Your task to perform on an android device: move an email to a new category in the gmail app Image 0: 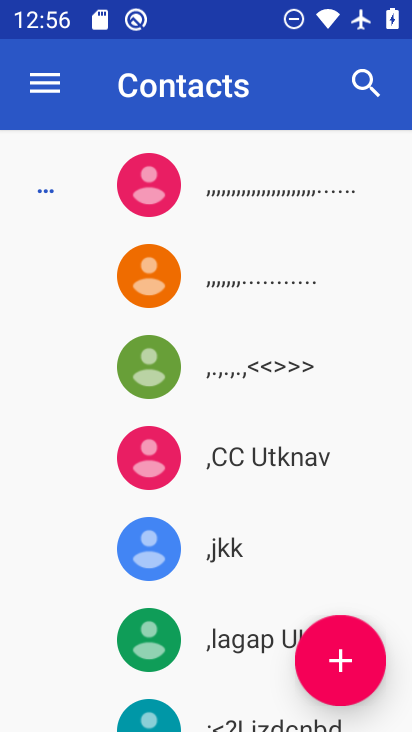
Step 0: press home button
Your task to perform on an android device: move an email to a new category in the gmail app Image 1: 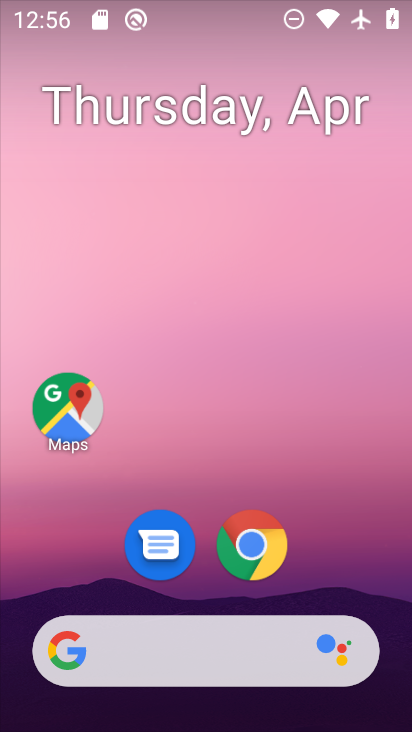
Step 1: drag from (305, 574) to (315, 107)
Your task to perform on an android device: move an email to a new category in the gmail app Image 2: 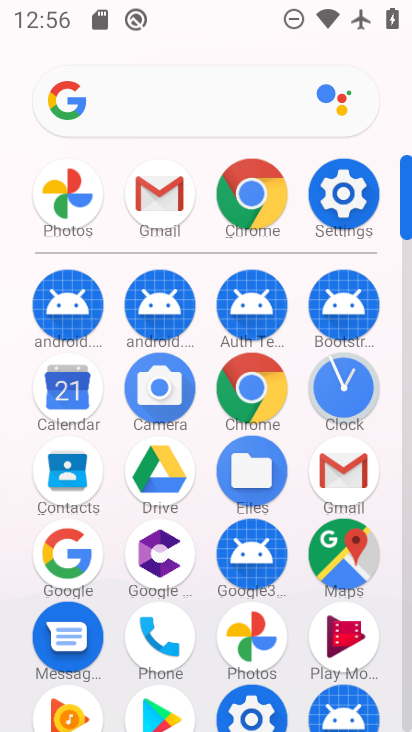
Step 2: click (348, 496)
Your task to perform on an android device: move an email to a new category in the gmail app Image 3: 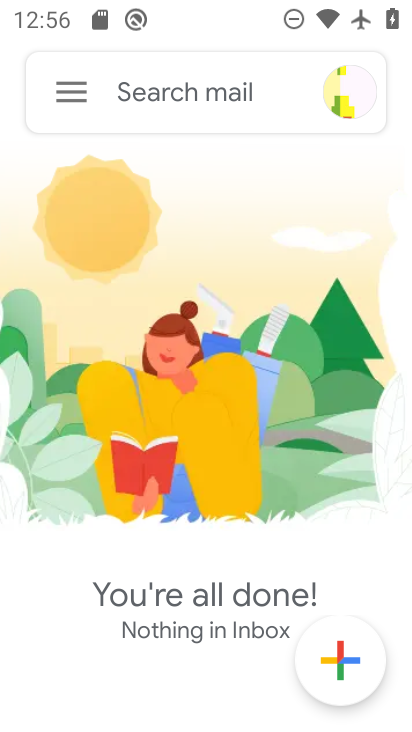
Step 3: click (62, 98)
Your task to perform on an android device: move an email to a new category in the gmail app Image 4: 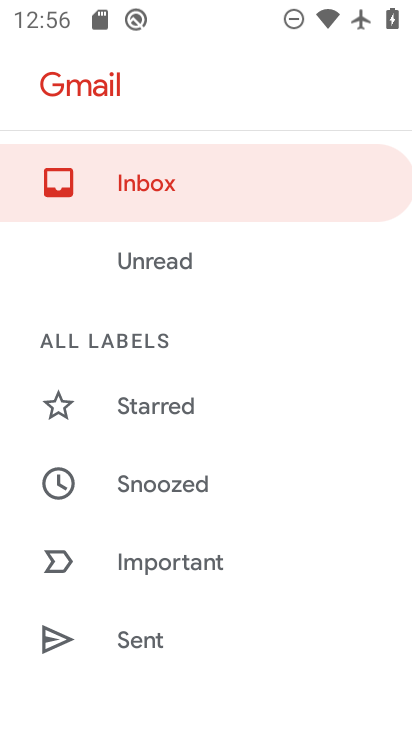
Step 4: drag from (129, 558) to (216, 83)
Your task to perform on an android device: move an email to a new category in the gmail app Image 5: 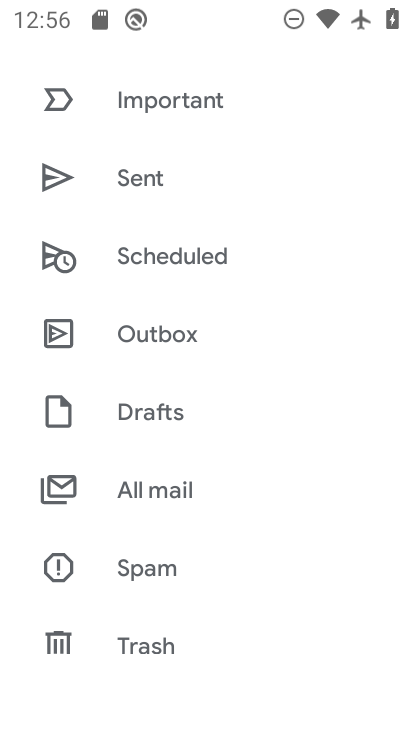
Step 5: click (132, 502)
Your task to perform on an android device: move an email to a new category in the gmail app Image 6: 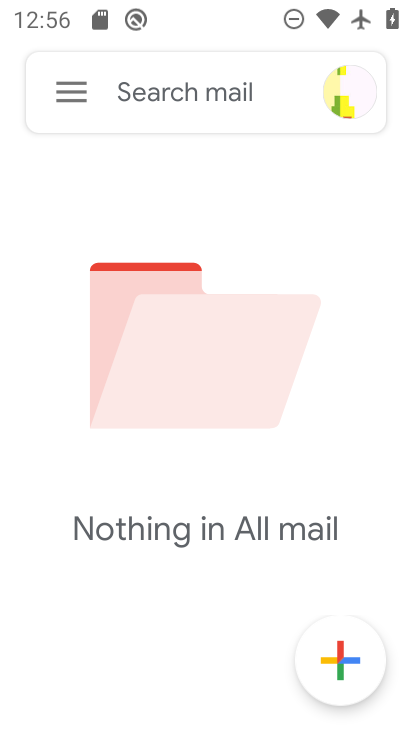
Step 6: task complete